Your task to perform on an android device: set the timer Image 0: 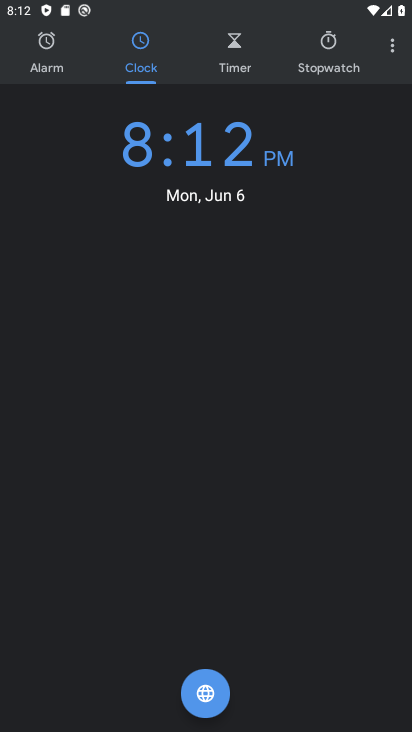
Step 0: press home button
Your task to perform on an android device: set the timer Image 1: 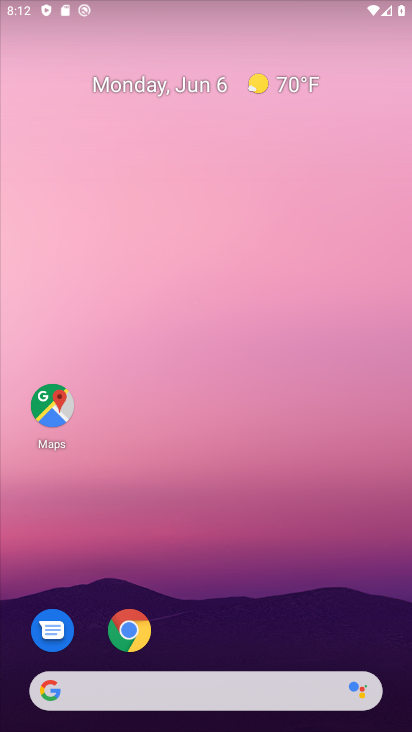
Step 1: drag from (308, 617) to (270, 189)
Your task to perform on an android device: set the timer Image 2: 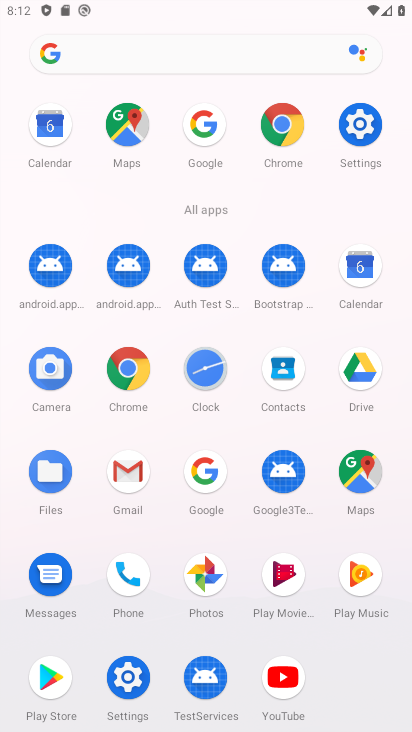
Step 2: click (205, 369)
Your task to perform on an android device: set the timer Image 3: 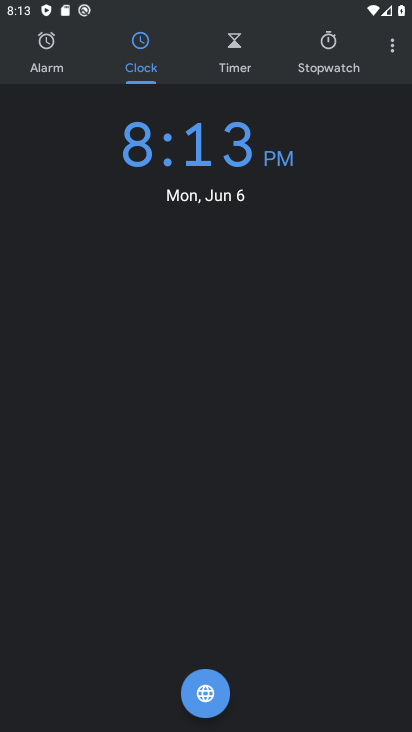
Step 3: click (229, 59)
Your task to perform on an android device: set the timer Image 4: 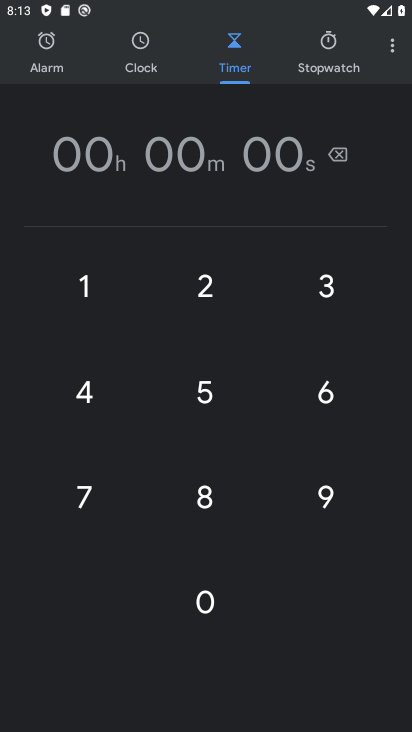
Step 4: click (295, 143)
Your task to perform on an android device: set the timer Image 5: 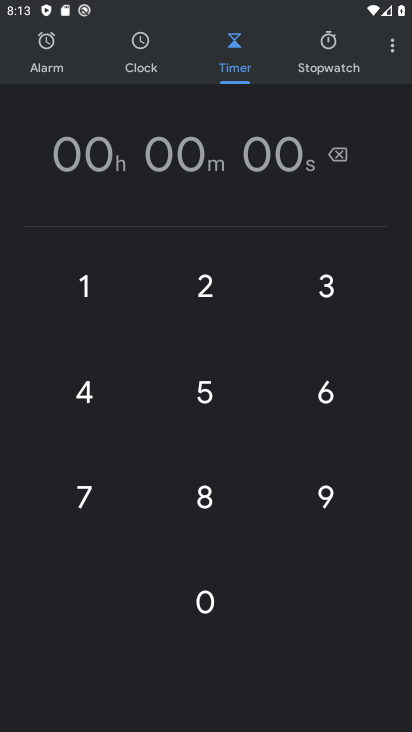
Step 5: type "11"
Your task to perform on an android device: set the timer Image 6: 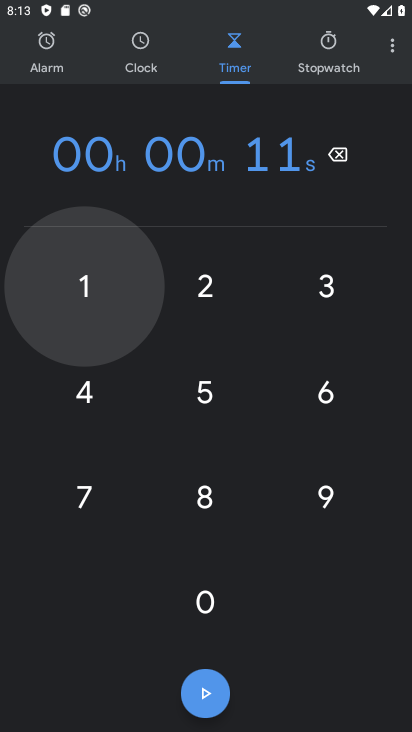
Step 6: click (210, 689)
Your task to perform on an android device: set the timer Image 7: 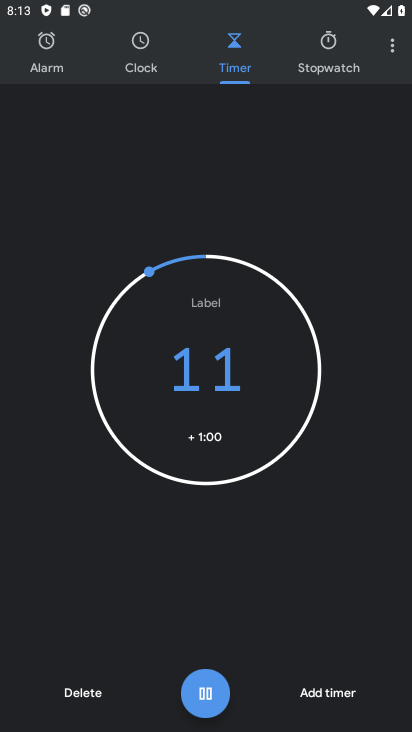
Step 7: task complete